Your task to perform on an android device: set the timer Image 0: 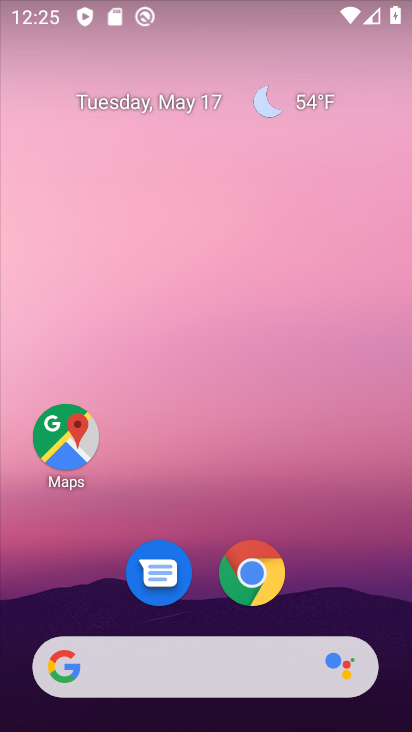
Step 0: press home button
Your task to perform on an android device: set the timer Image 1: 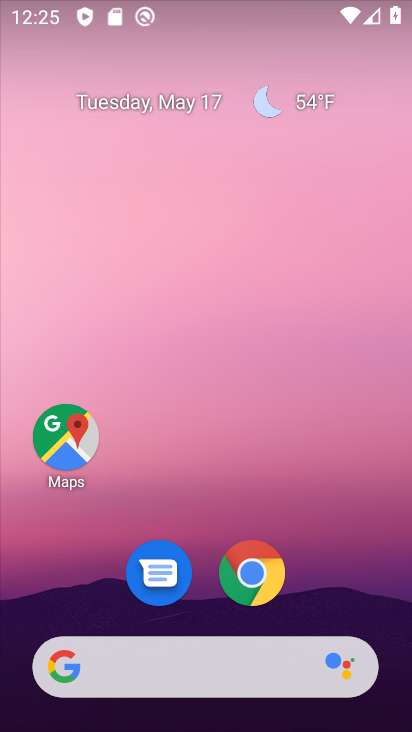
Step 1: drag from (209, 619) to (199, 63)
Your task to perform on an android device: set the timer Image 2: 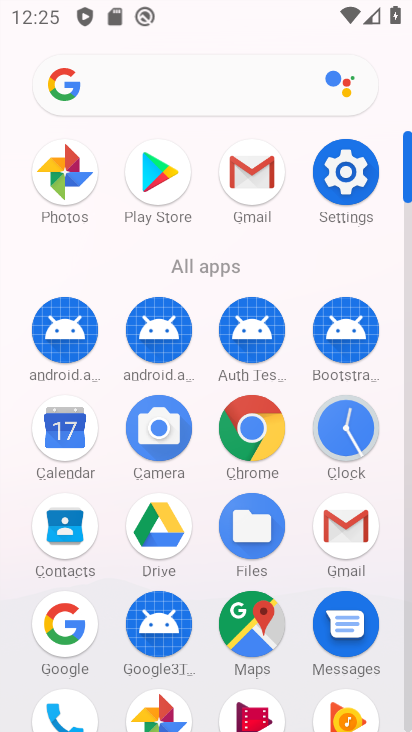
Step 2: click (348, 427)
Your task to perform on an android device: set the timer Image 3: 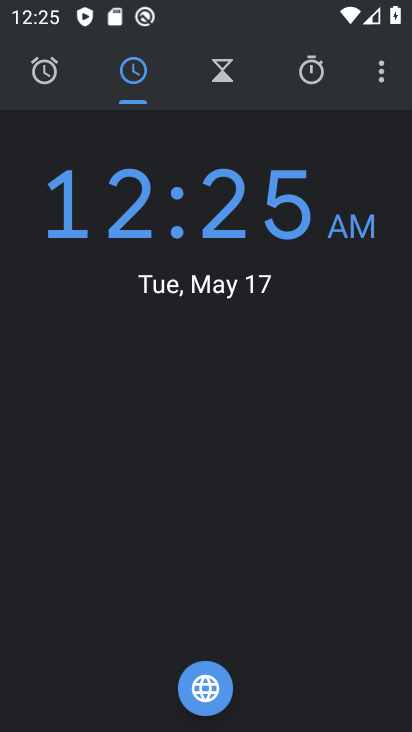
Step 3: click (218, 75)
Your task to perform on an android device: set the timer Image 4: 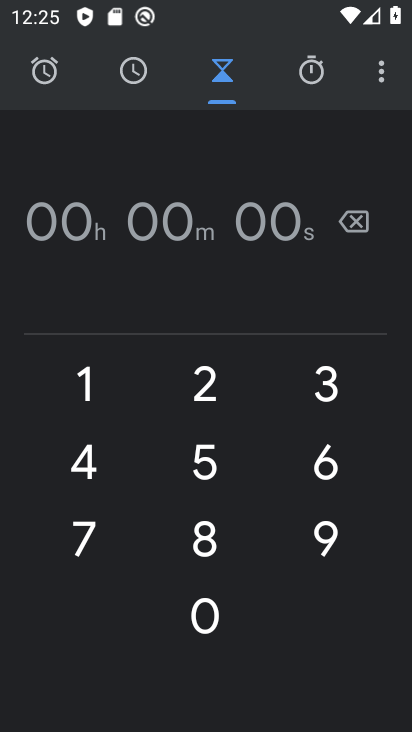
Step 4: click (214, 391)
Your task to perform on an android device: set the timer Image 5: 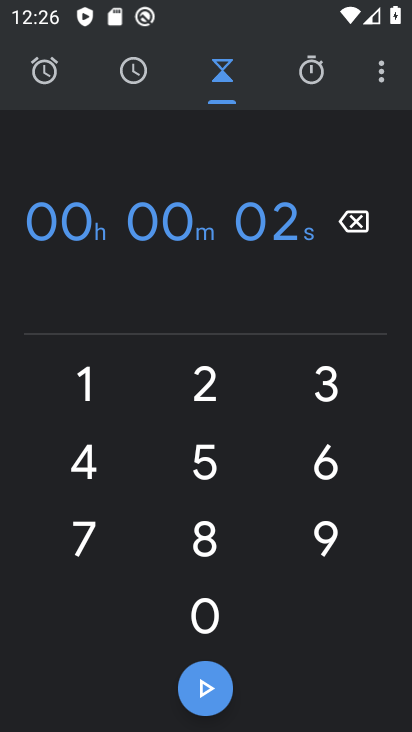
Step 5: click (199, 626)
Your task to perform on an android device: set the timer Image 6: 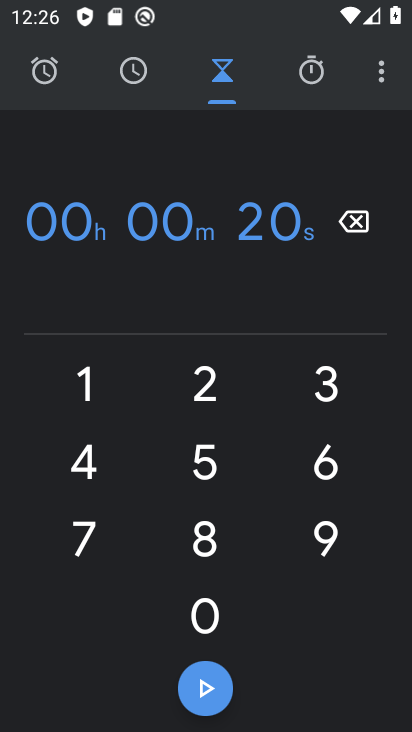
Step 6: click (199, 626)
Your task to perform on an android device: set the timer Image 7: 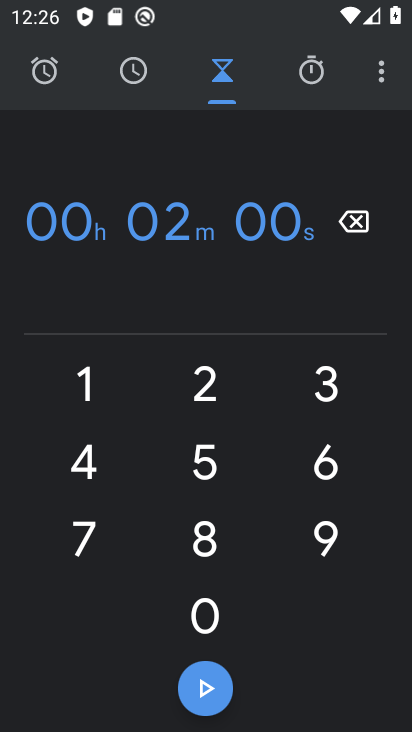
Step 7: click (199, 625)
Your task to perform on an android device: set the timer Image 8: 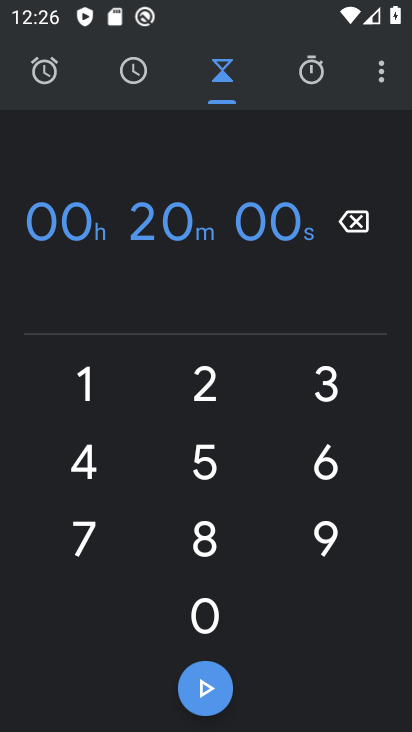
Step 8: click (210, 687)
Your task to perform on an android device: set the timer Image 9: 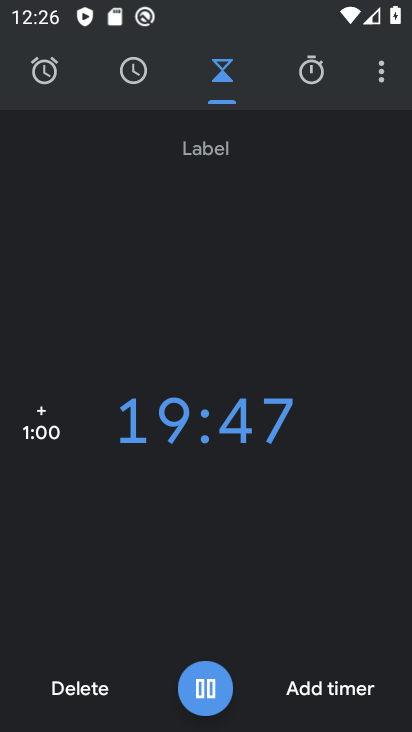
Step 9: task complete